Your task to perform on an android device: Open privacy settings Image 0: 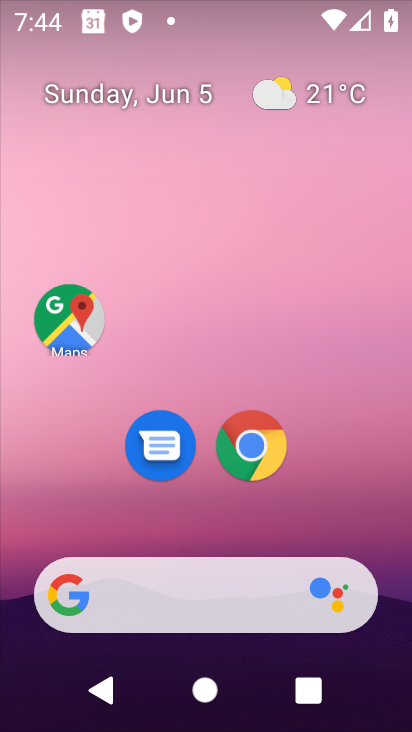
Step 0: press home button
Your task to perform on an android device: Open privacy settings Image 1: 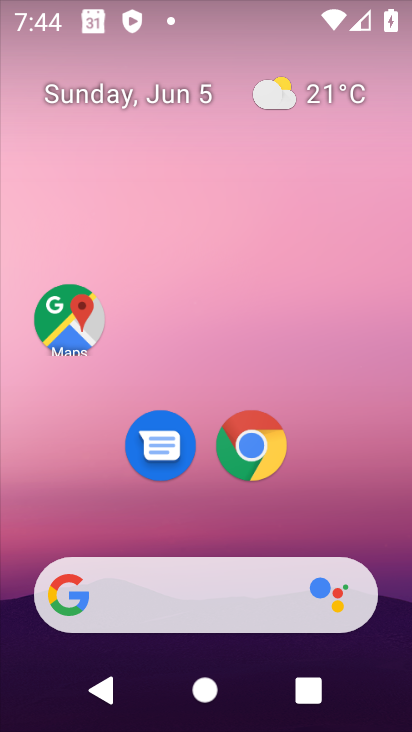
Step 1: drag from (350, 473) to (322, 171)
Your task to perform on an android device: Open privacy settings Image 2: 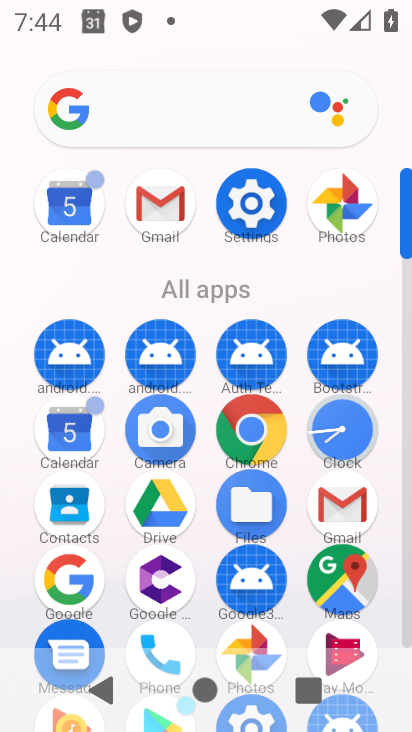
Step 2: click (259, 197)
Your task to perform on an android device: Open privacy settings Image 3: 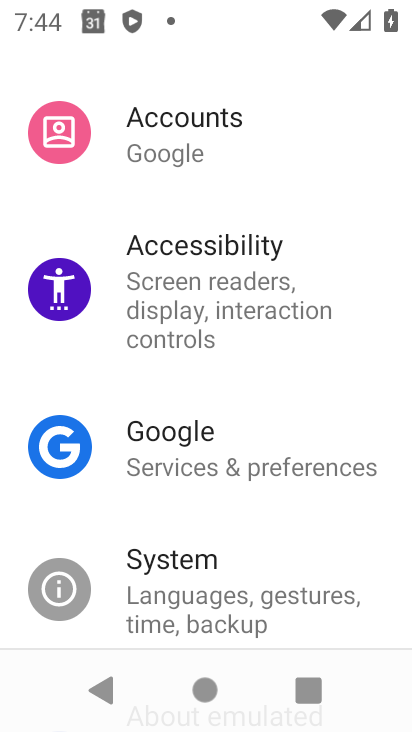
Step 3: drag from (354, 183) to (327, 726)
Your task to perform on an android device: Open privacy settings Image 4: 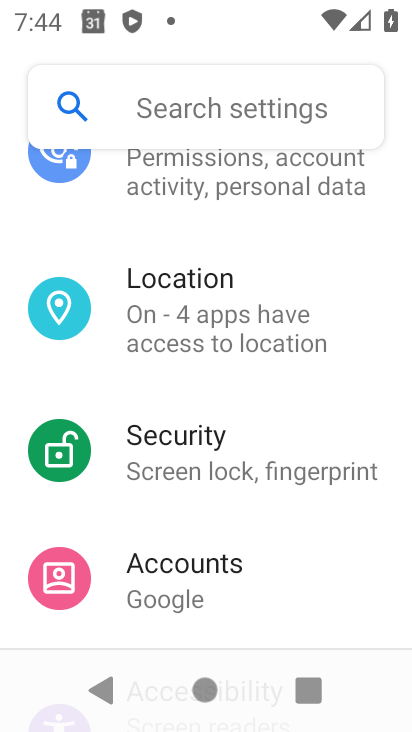
Step 4: drag from (364, 253) to (324, 676)
Your task to perform on an android device: Open privacy settings Image 5: 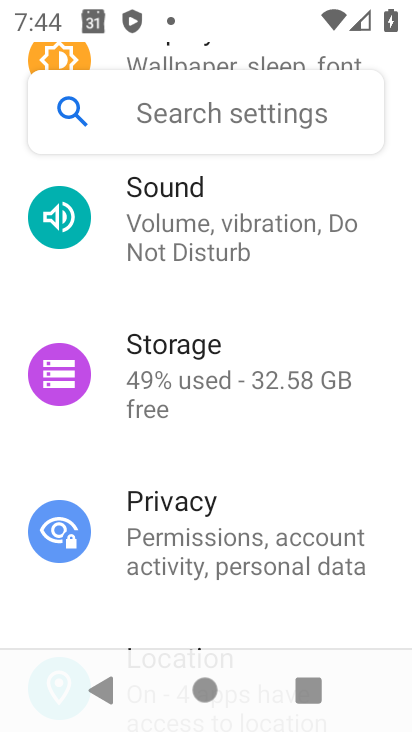
Step 5: click (216, 531)
Your task to perform on an android device: Open privacy settings Image 6: 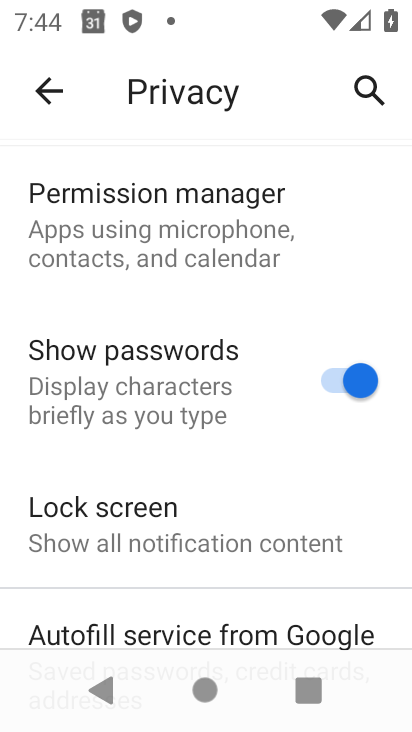
Step 6: task complete